Your task to perform on an android device: Open calendar and show me the first week of next month Image 0: 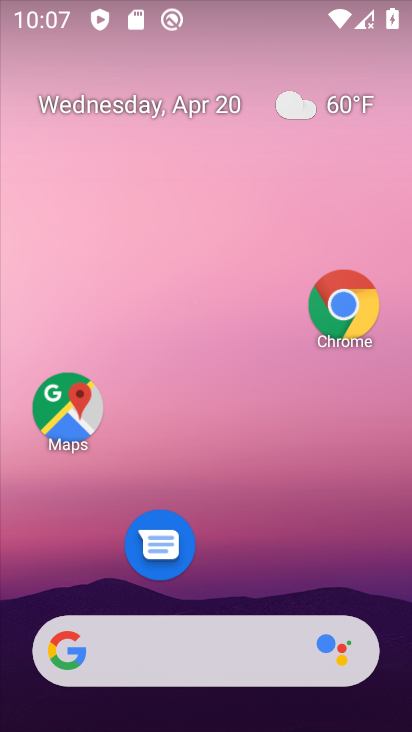
Step 0: drag from (214, 633) to (239, 238)
Your task to perform on an android device: Open calendar and show me the first week of next month Image 1: 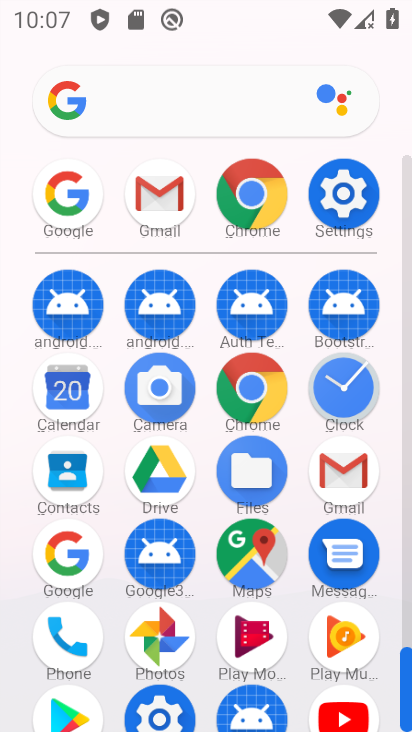
Step 1: click (66, 394)
Your task to perform on an android device: Open calendar and show me the first week of next month Image 2: 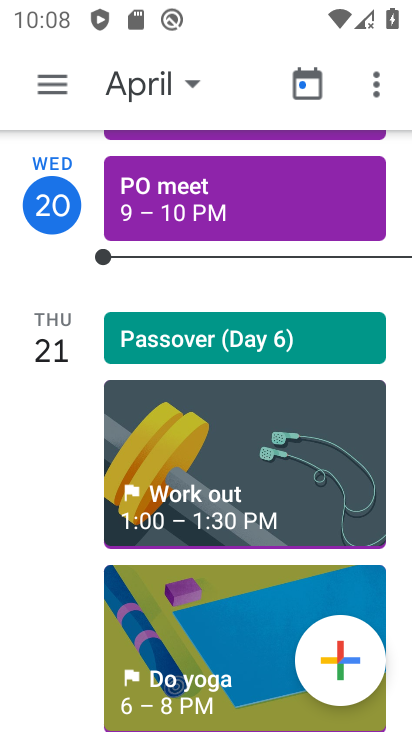
Step 2: click (186, 84)
Your task to perform on an android device: Open calendar and show me the first week of next month Image 3: 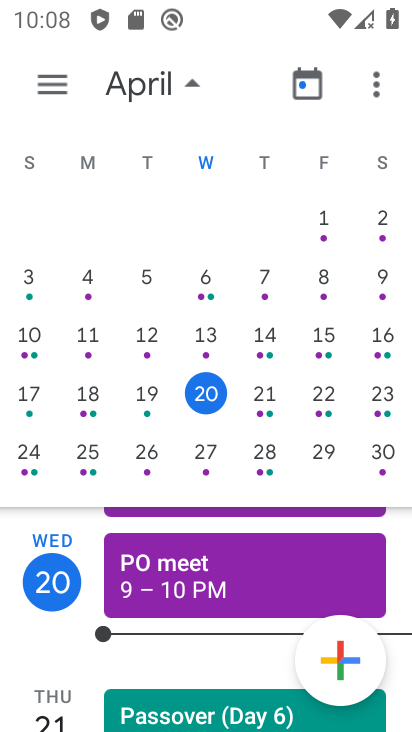
Step 3: task complete